Your task to perform on an android device: Search for Mexican restaurants on Maps Image 0: 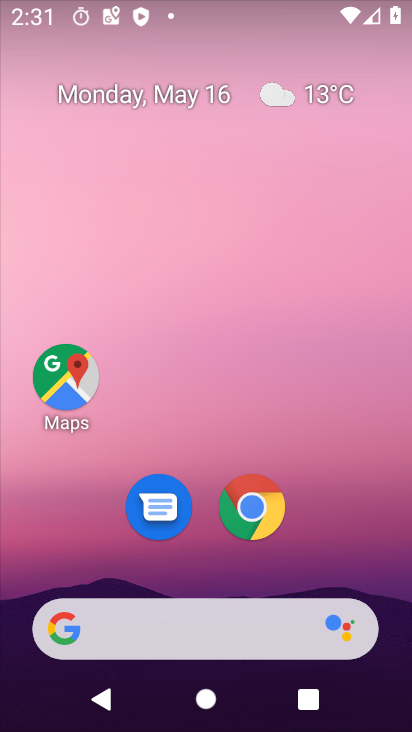
Step 0: drag from (339, 548) to (394, 150)
Your task to perform on an android device: Search for Mexican restaurants on Maps Image 1: 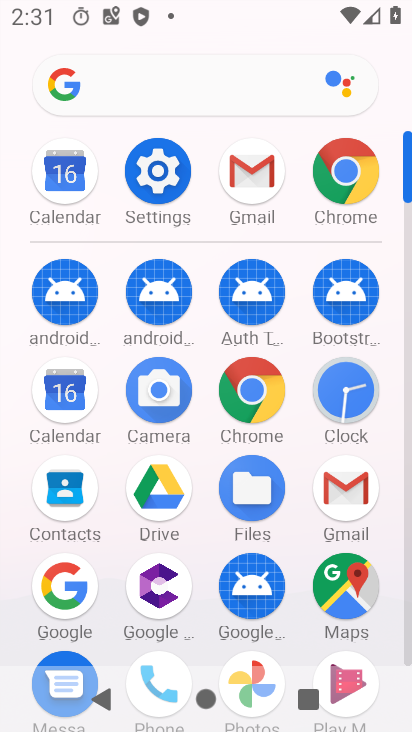
Step 1: click (368, 592)
Your task to perform on an android device: Search for Mexican restaurants on Maps Image 2: 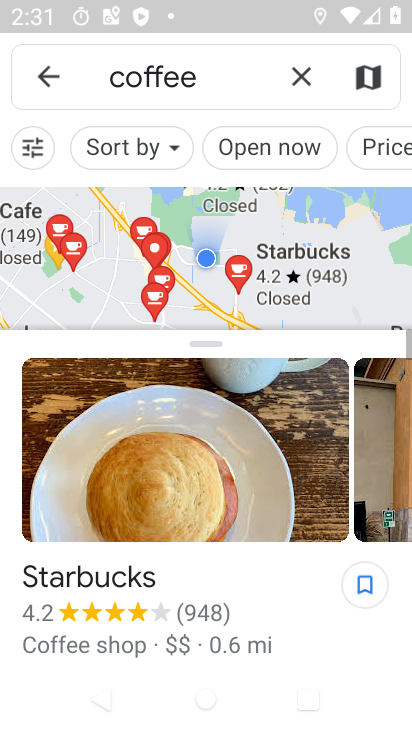
Step 2: click (300, 72)
Your task to perform on an android device: Search for Mexican restaurants on Maps Image 3: 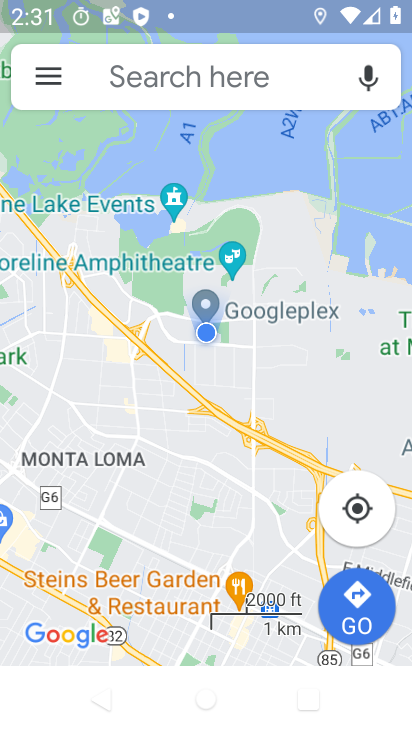
Step 3: click (187, 72)
Your task to perform on an android device: Search for Mexican restaurants on Maps Image 4: 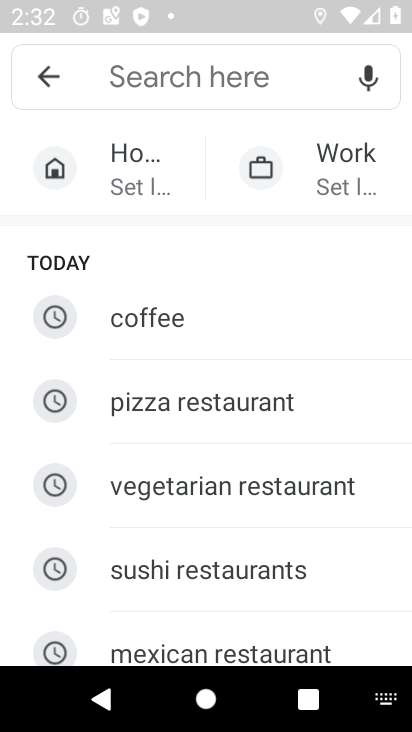
Step 4: type "mexcian restaurants"
Your task to perform on an android device: Search for Mexican restaurants on Maps Image 5: 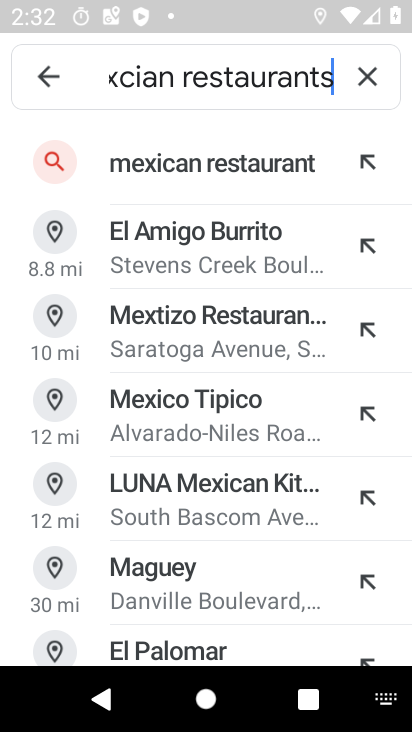
Step 5: click (243, 151)
Your task to perform on an android device: Search for Mexican restaurants on Maps Image 6: 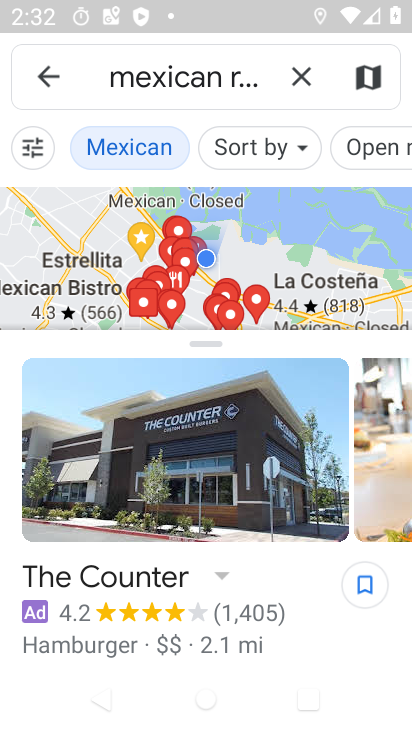
Step 6: task complete